Your task to perform on an android device: turn on the 24-hour format for clock Image 0: 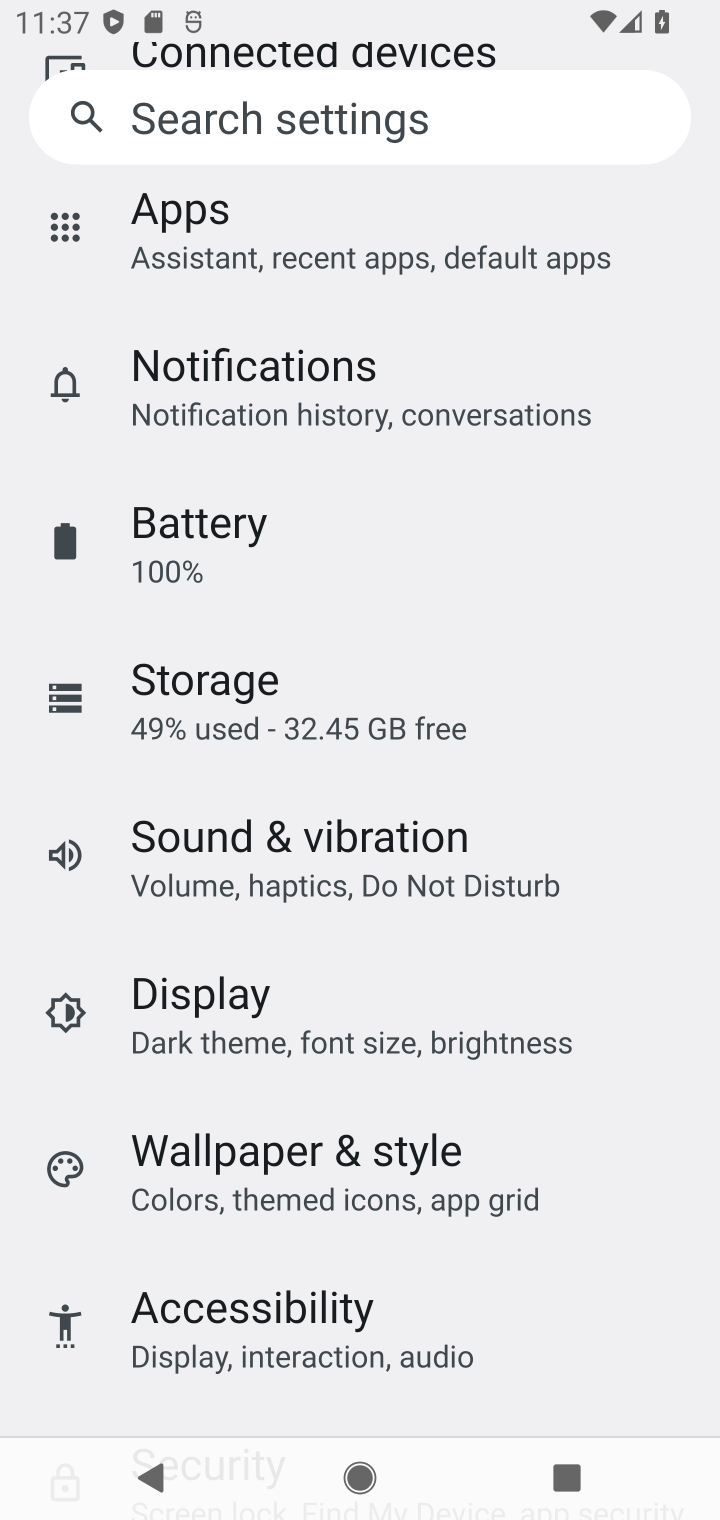
Step 0: press home button
Your task to perform on an android device: turn on the 24-hour format for clock Image 1: 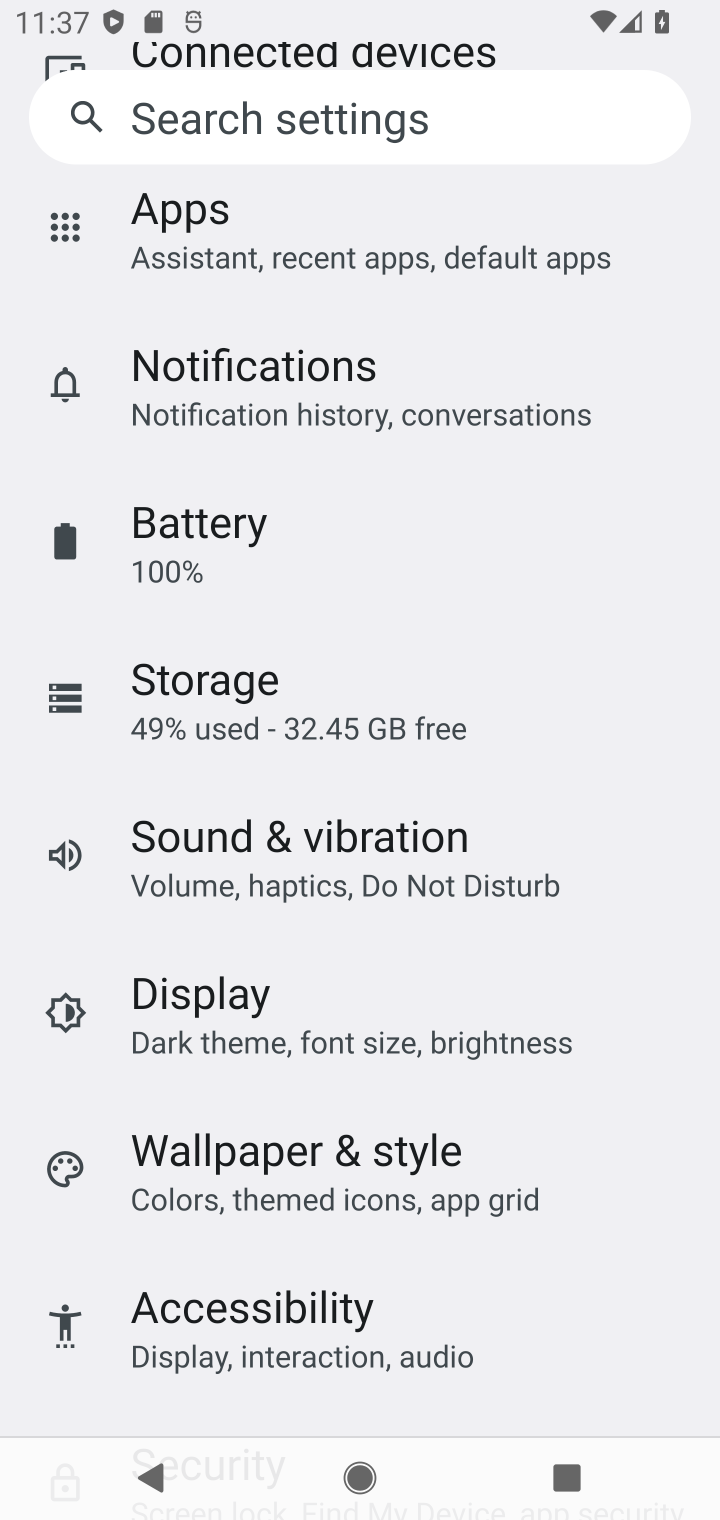
Step 1: press home button
Your task to perform on an android device: turn on the 24-hour format for clock Image 2: 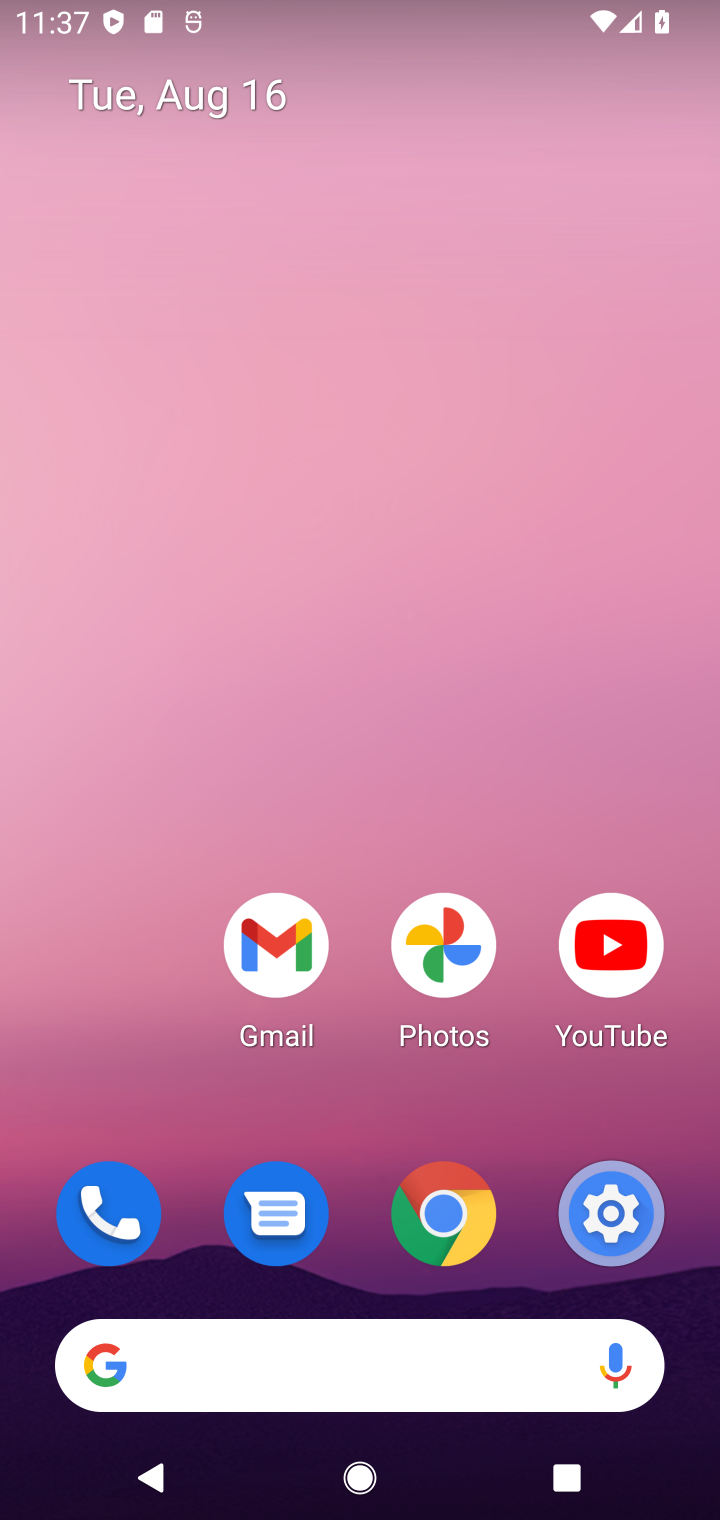
Step 2: drag from (510, 1015) to (583, 116)
Your task to perform on an android device: turn on the 24-hour format for clock Image 3: 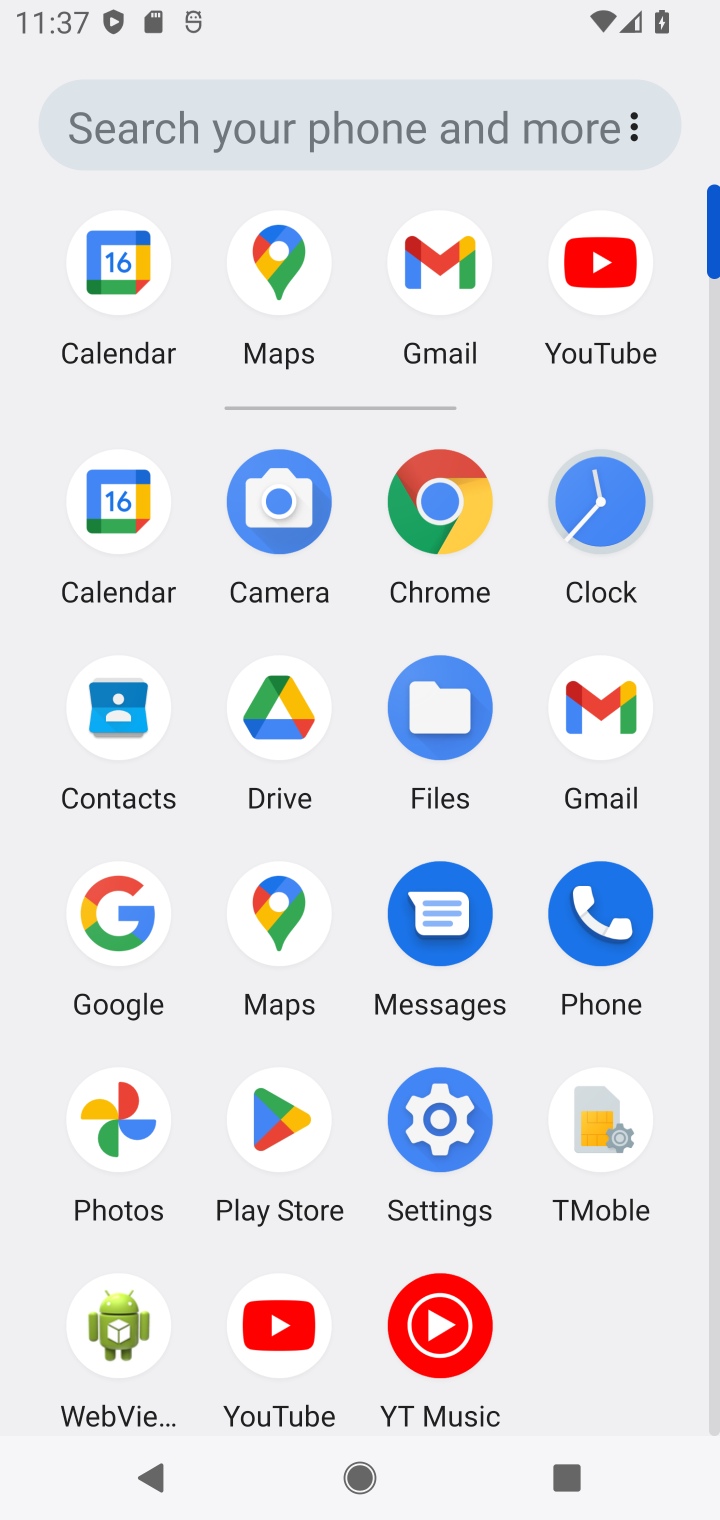
Step 3: click (595, 524)
Your task to perform on an android device: turn on the 24-hour format for clock Image 4: 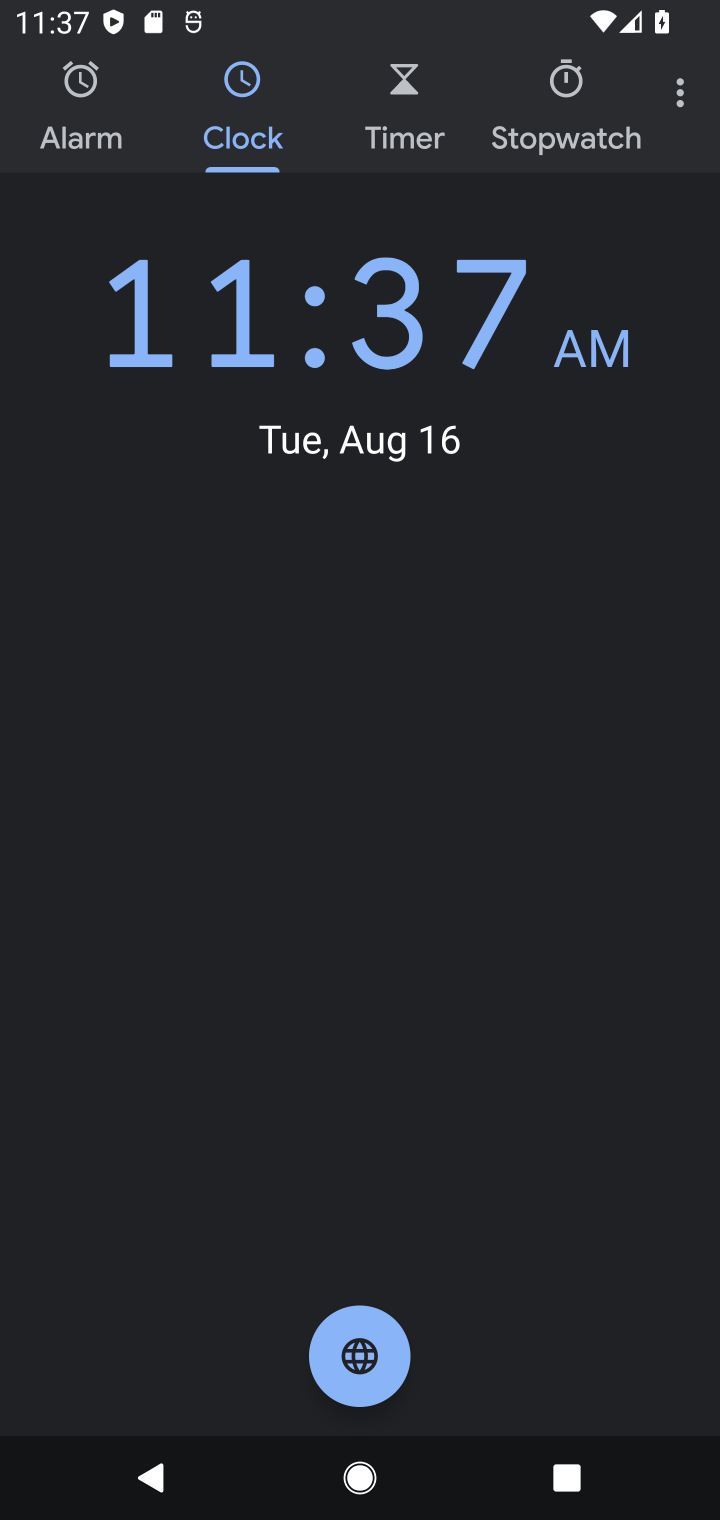
Step 4: click (677, 90)
Your task to perform on an android device: turn on the 24-hour format for clock Image 5: 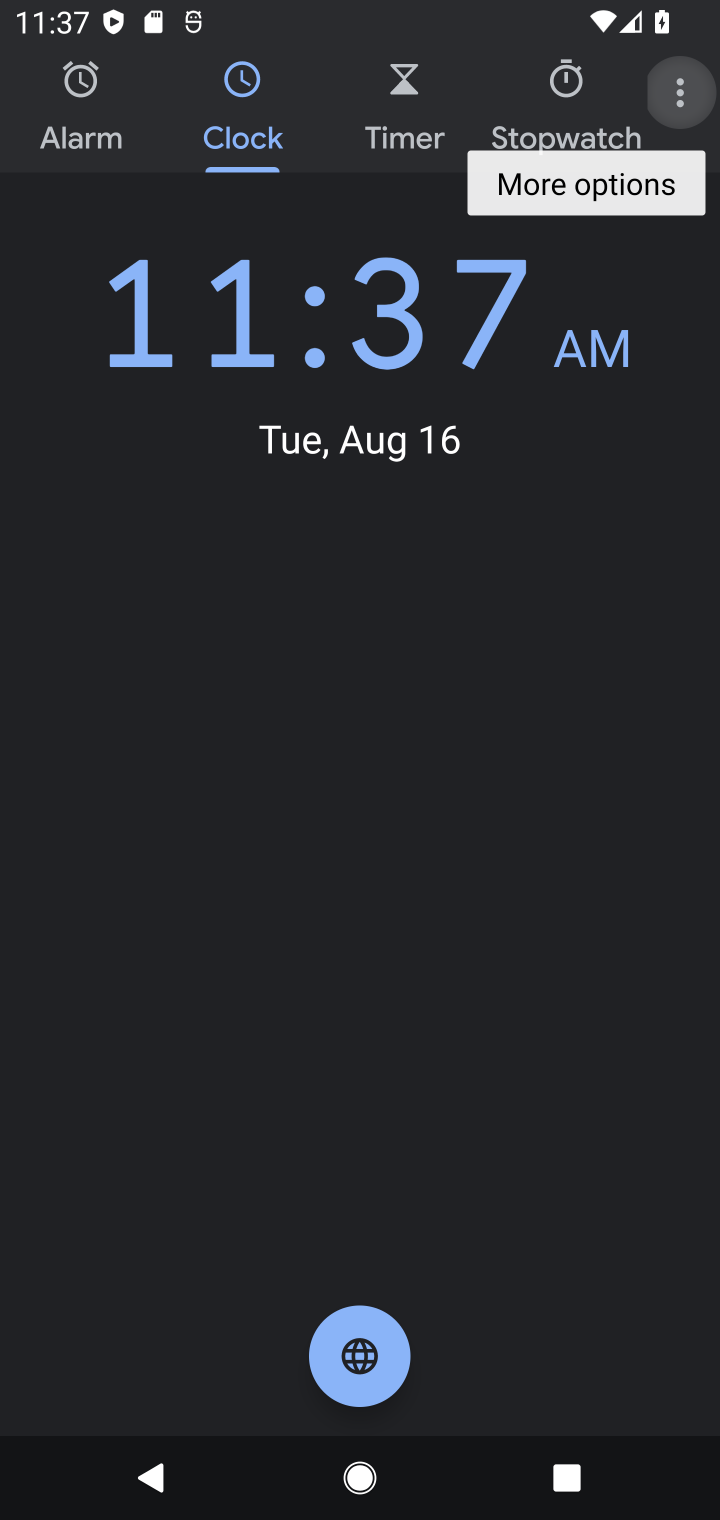
Step 5: click (673, 96)
Your task to perform on an android device: turn on the 24-hour format for clock Image 6: 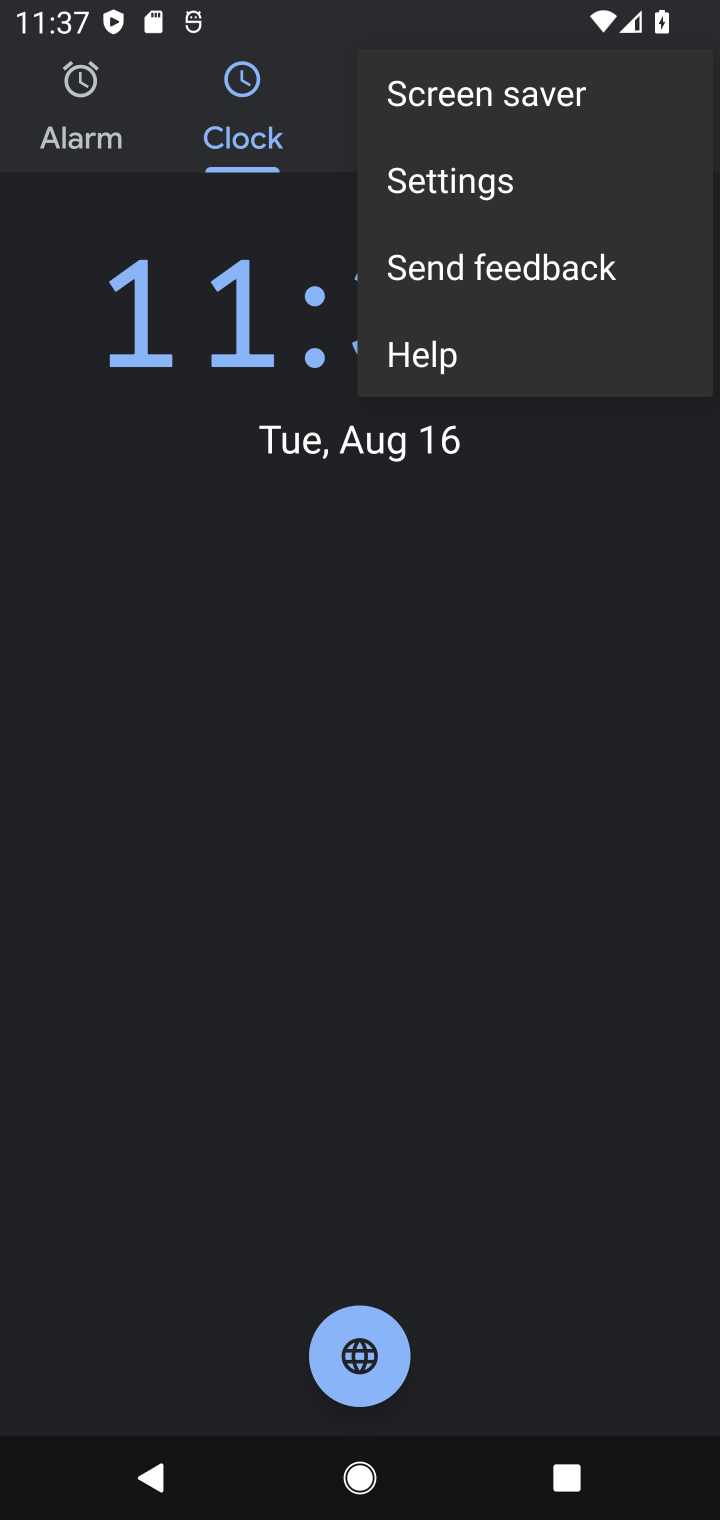
Step 6: click (498, 162)
Your task to perform on an android device: turn on the 24-hour format for clock Image 7: 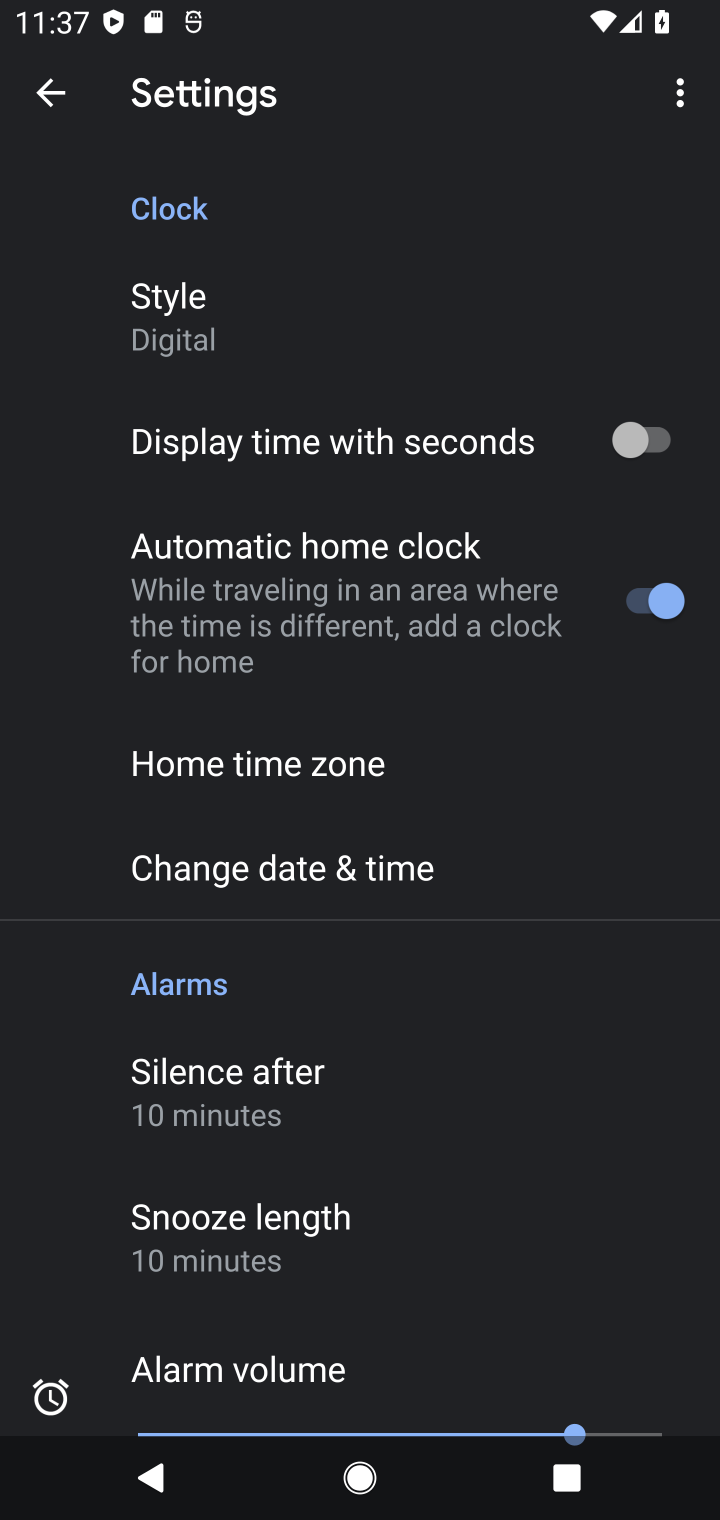
Step 7: click (355, 872)
Your task to perform on an android device: turn on the 24-hour format for clock Image 8: 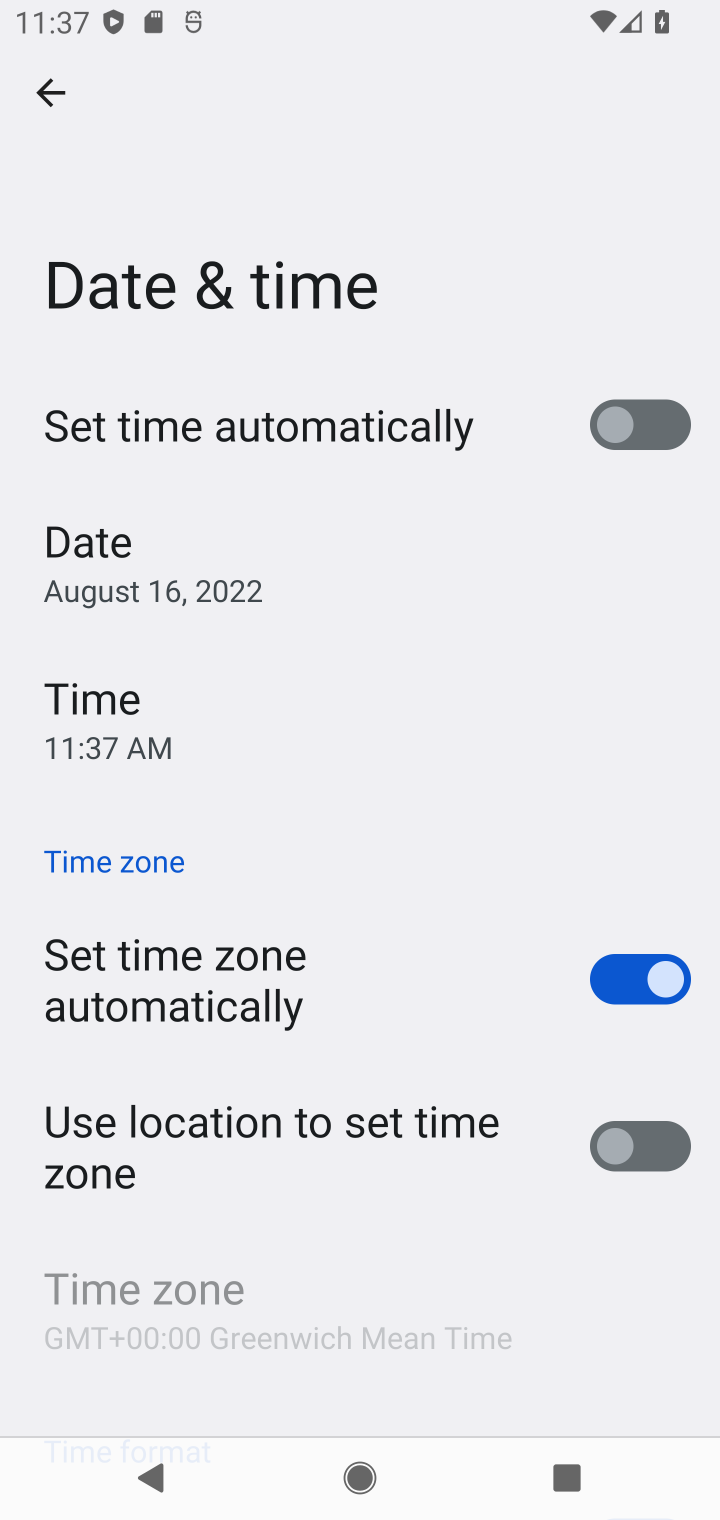
Step 8: drag from (423, 1193) to (508, 481)
Your task to perform on an android device: turn on the 24-hour format for clock Image 9: 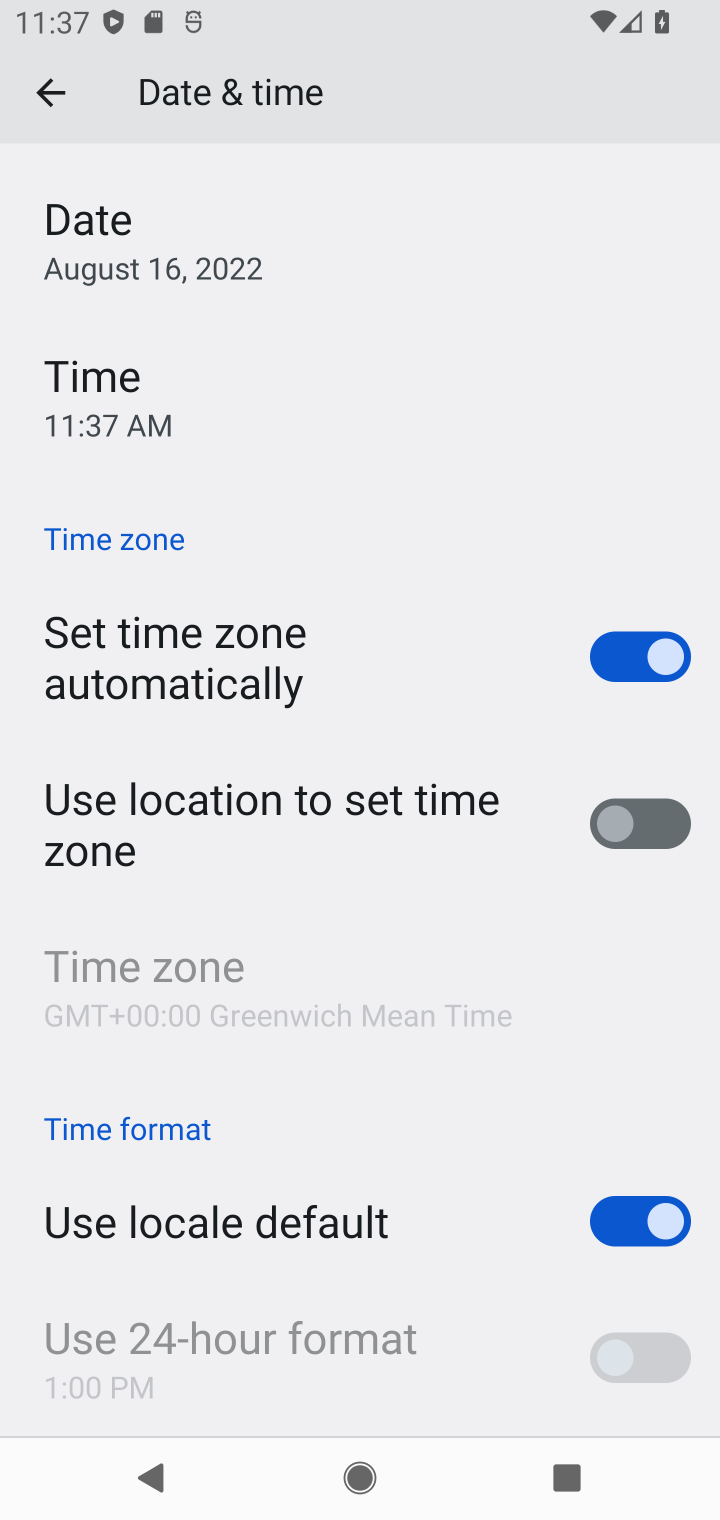
Step 9: click (617, 1219)
Your task to perform on an android device: turn on the 24-hour format for clock Image 10: 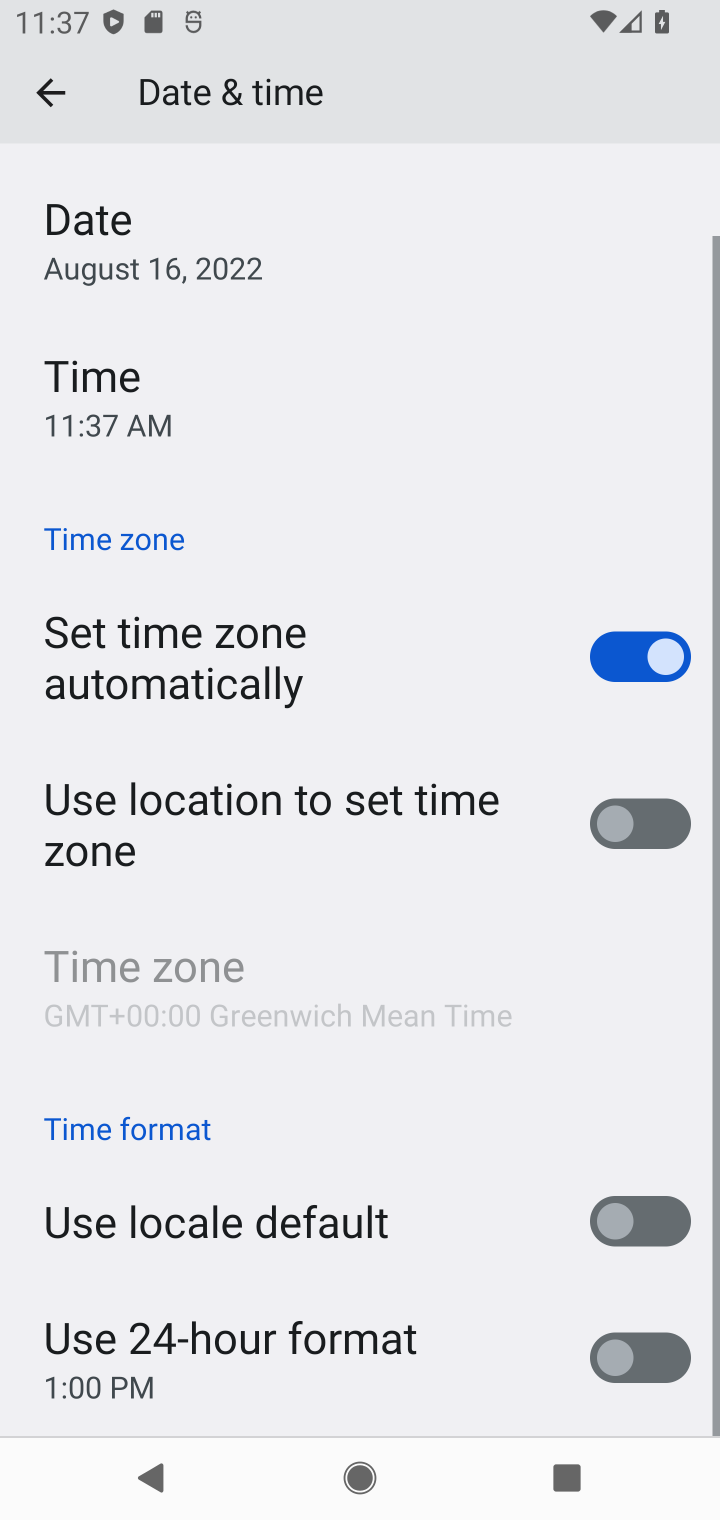
Step 10: click (664, 1353)
Your task to perform on an android device: turn on the 24-hour format for clock Image 11: 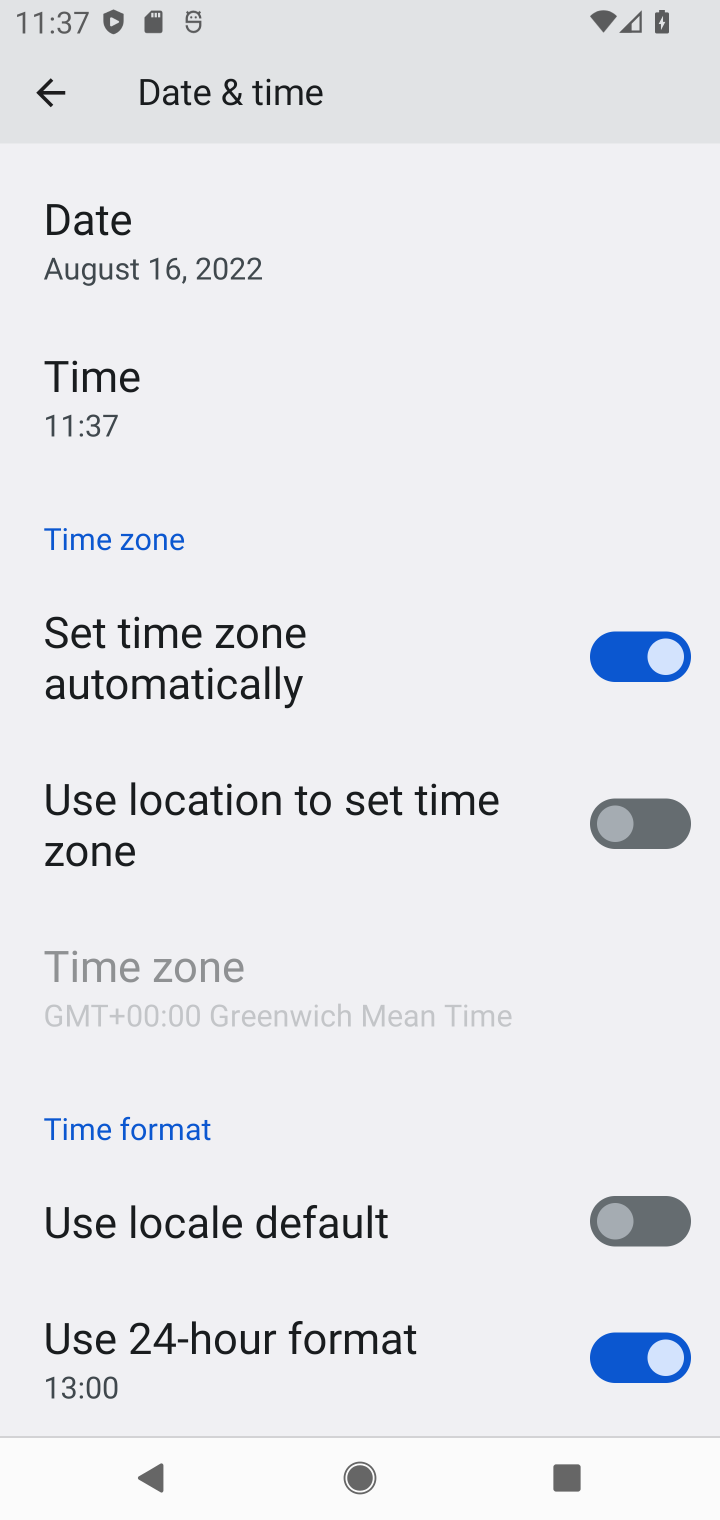
Step 11: task complete